Your task to perform on an android device: Open Google Maps and go to "Timeline" Image 0: 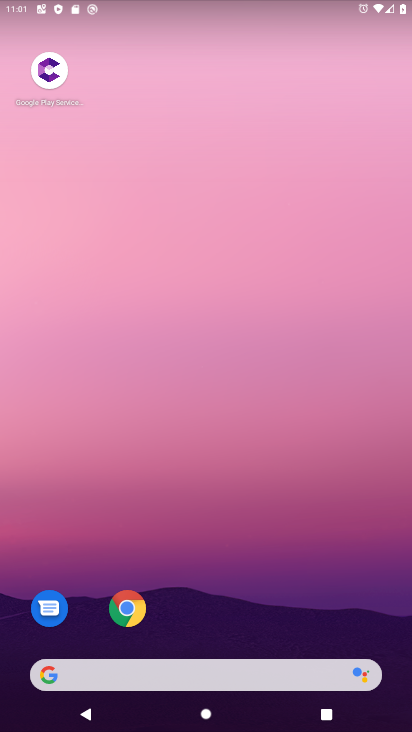
Step 0: drag from (225, 620) to (198, 7)
Your task to perform on an android device: Open Google Maps and go to "Timeline" Image 1: 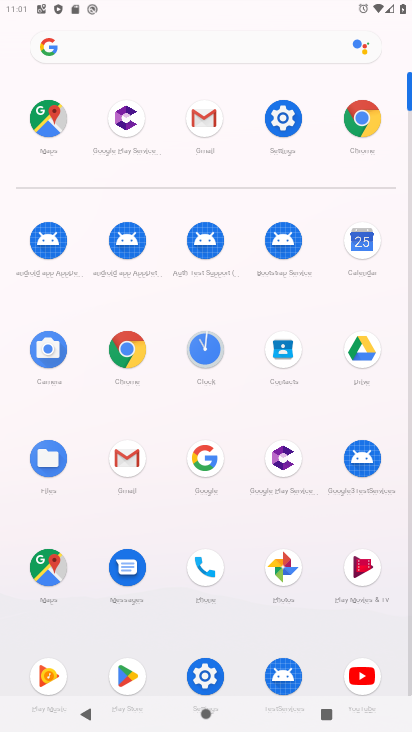
Step 1: click (55, 575)
Your task to perform on an android device: Open Google Maps and go to "Timeline" Image 2: 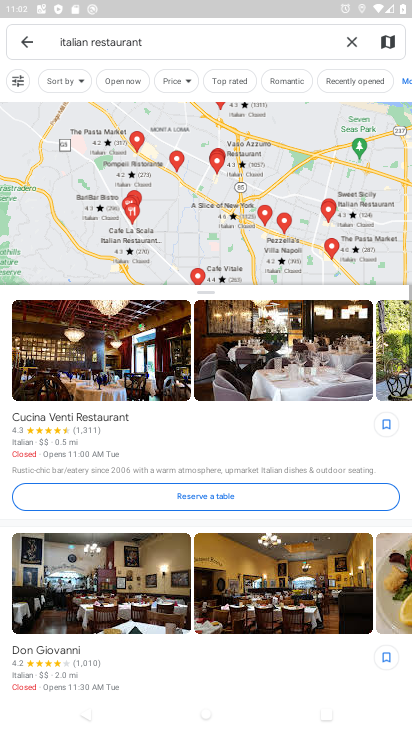
Step 2: click (20, 38)
Your task to perform on an android device: Open Google Maps and go to "Timeline" Image 3: 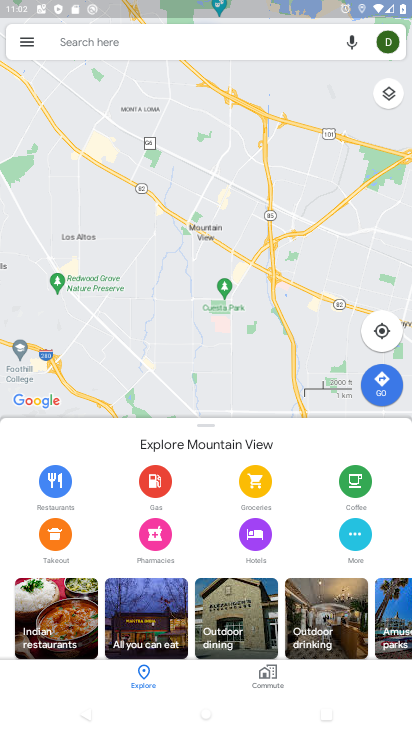
Step 3: click (25, 40)
Your task to perform on an android device: Open Google Maps and go to "Timeline" Image 4: 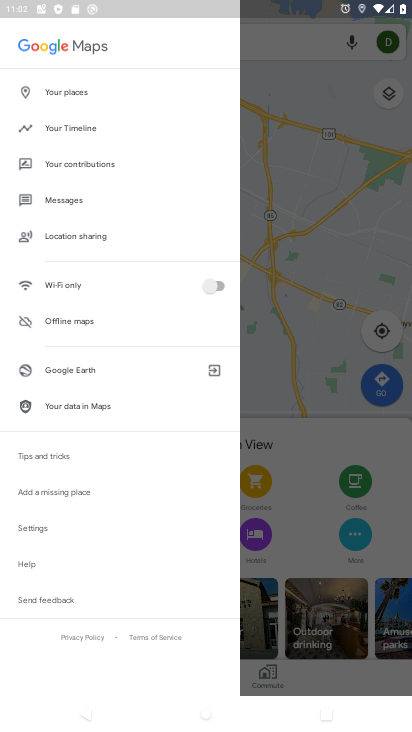
Step 4: click (81, 130)
Your task to perform on an android device: Open Google Maps and go to "Timeline" Image 5: 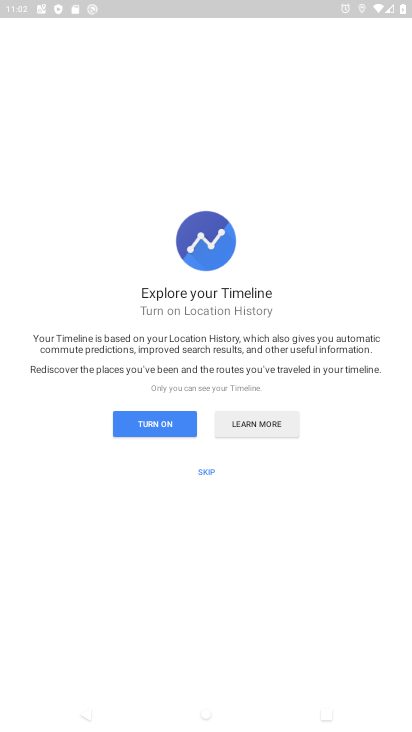
Step 5: click (203, 472)
Your task to perform on an android device: Open Google Maps and go to "Timeline" Image 6: 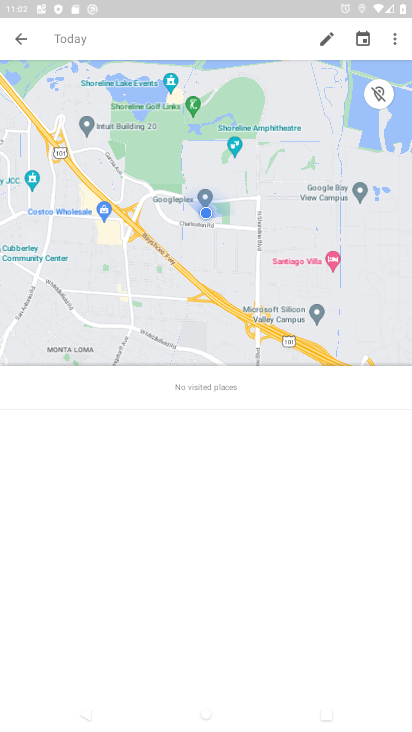
Step 6: task complete